Your task to perform on an android device: Search for vegetarian restaurants on Maps Image 0: 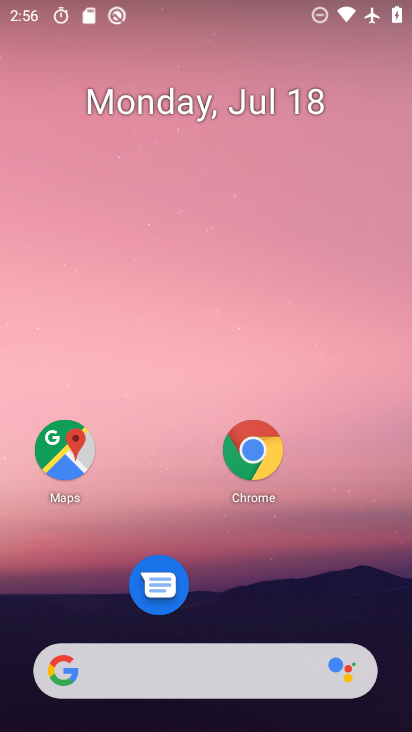
Step 0: click (54, 442)
Your task to perform on an android device: Search for vegetarian restaurants on Maps Image 1: 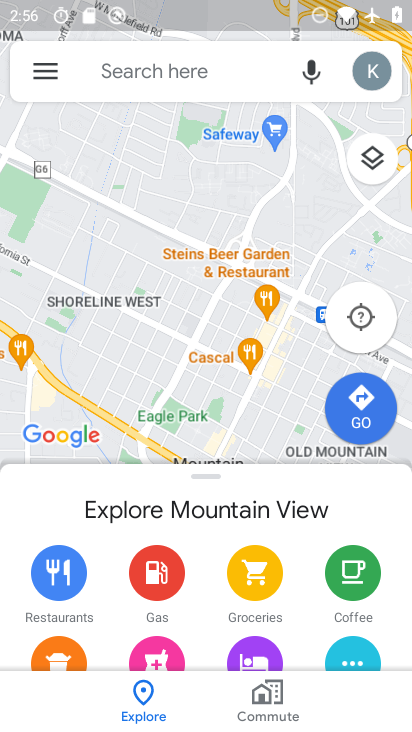
Step 1: click (189, 70)
Your task to perform on an android device: Search for vegetarian restaurants on Maps Image 2: 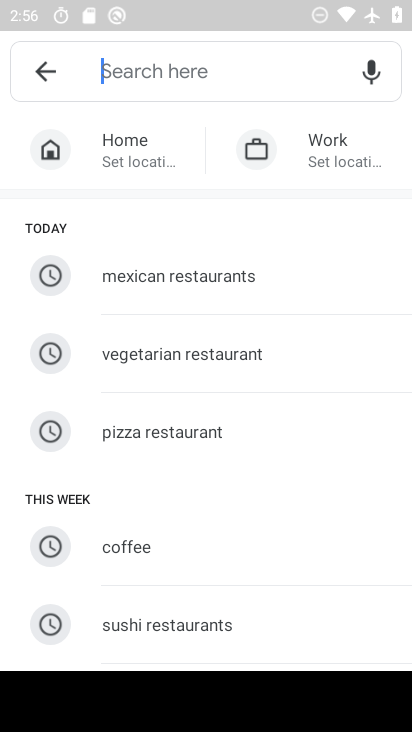
Step 2: click (187, 356)
Your task to perform on an android device: Search for vegetarian restaurants on Maps Image 3: 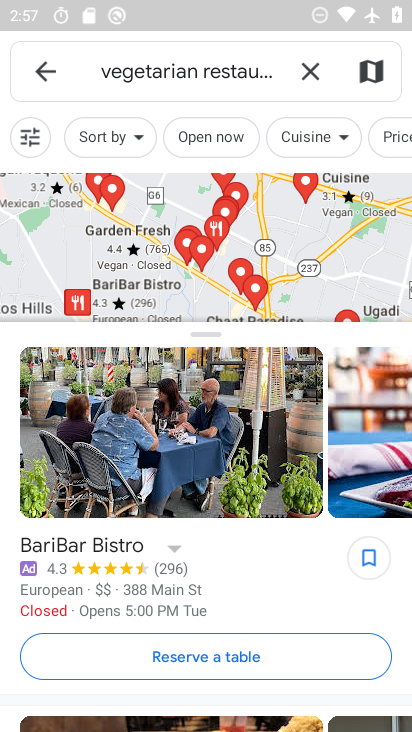
Step 3: task complete